Your task to perform on an android device: Open calendar and show me the first week of next month Image 0: 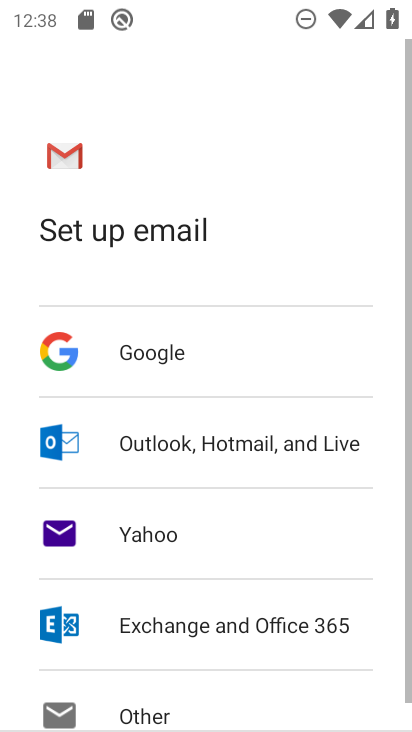
Step 0: press home button
Your task to perform on an android device: Open calendar and show me the first week of next month Image 1: 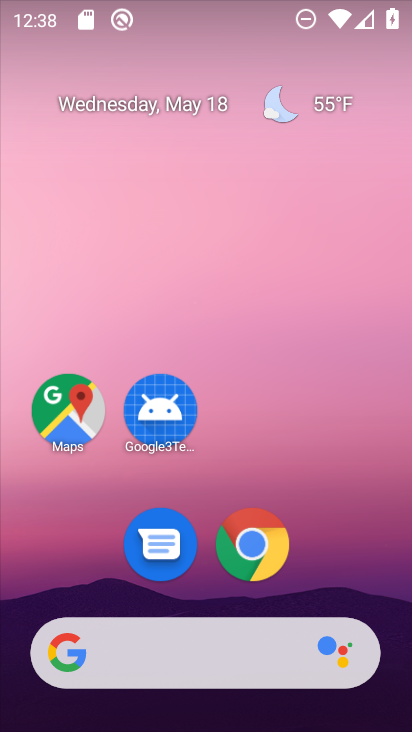
Step 1: drag from (200, 578) to (249, 96)
Your task to perform on an android device: Open calendar and show me the first week of next month Image 2: 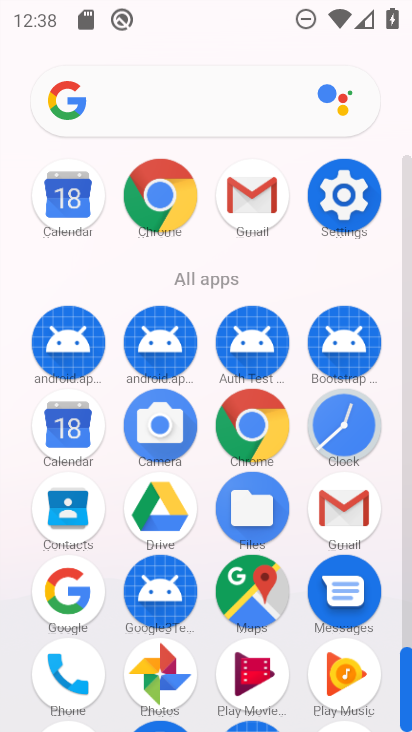
Step 2: click (66, 431)
Your task to perform on an android device: Open calendar and show me the first week of next month Image 3: 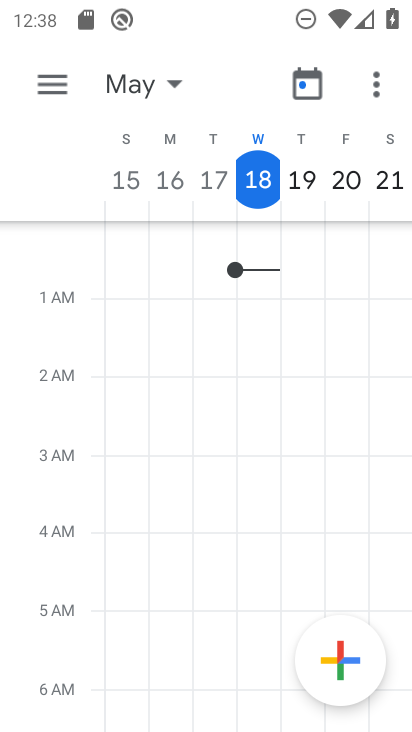
Step 3: task complete